Your task to perform on an android device: Add usb-a to usb-b to the cart on target, then select checkout. Image 0: 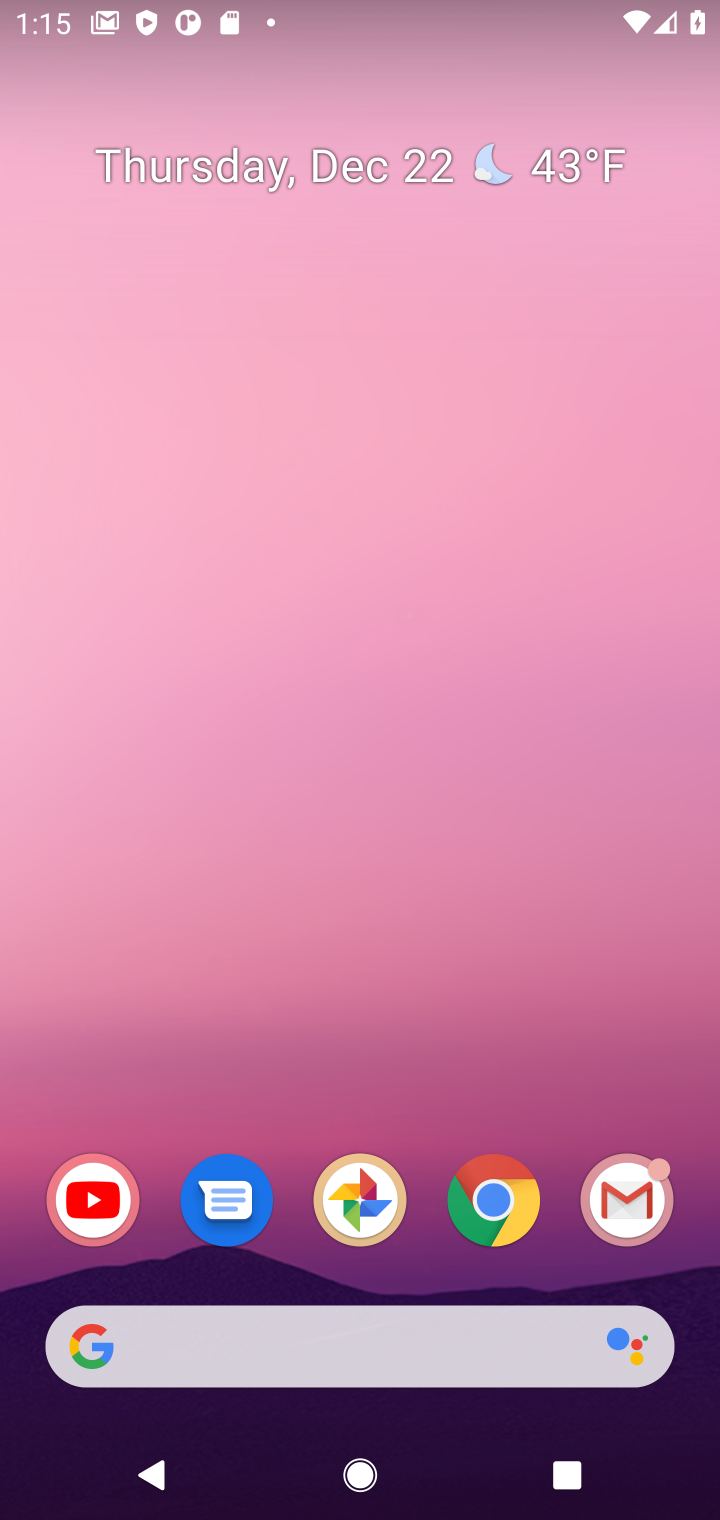
Step 0: click (507, 1224)
Your task to perform on an android device: Add usb-a to usb-b to the cart on target, then select checkout. Image 1: 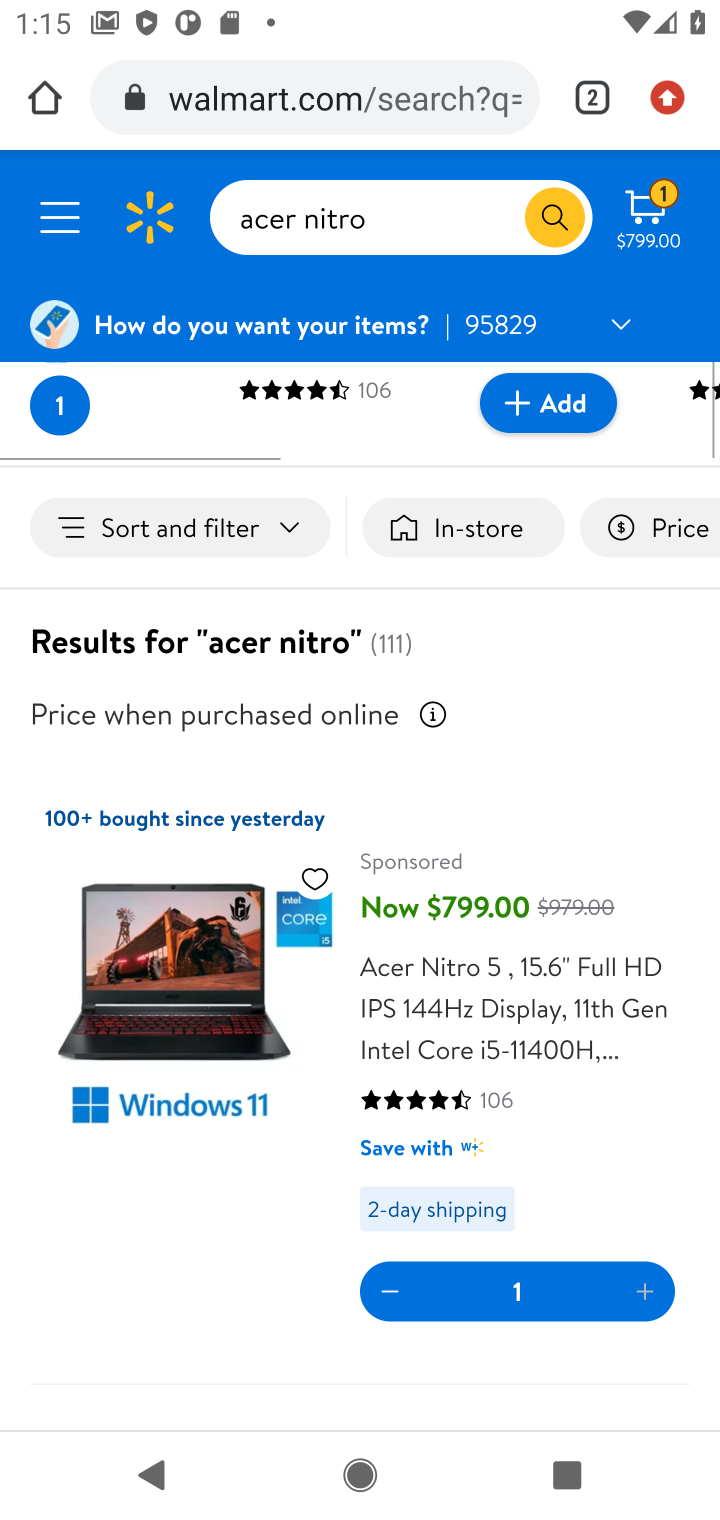
Step 1: click (306, 103)
Your task to perform on an android device: Add usb-a to usb-b to the cart on target, then select checkout. Image 2: 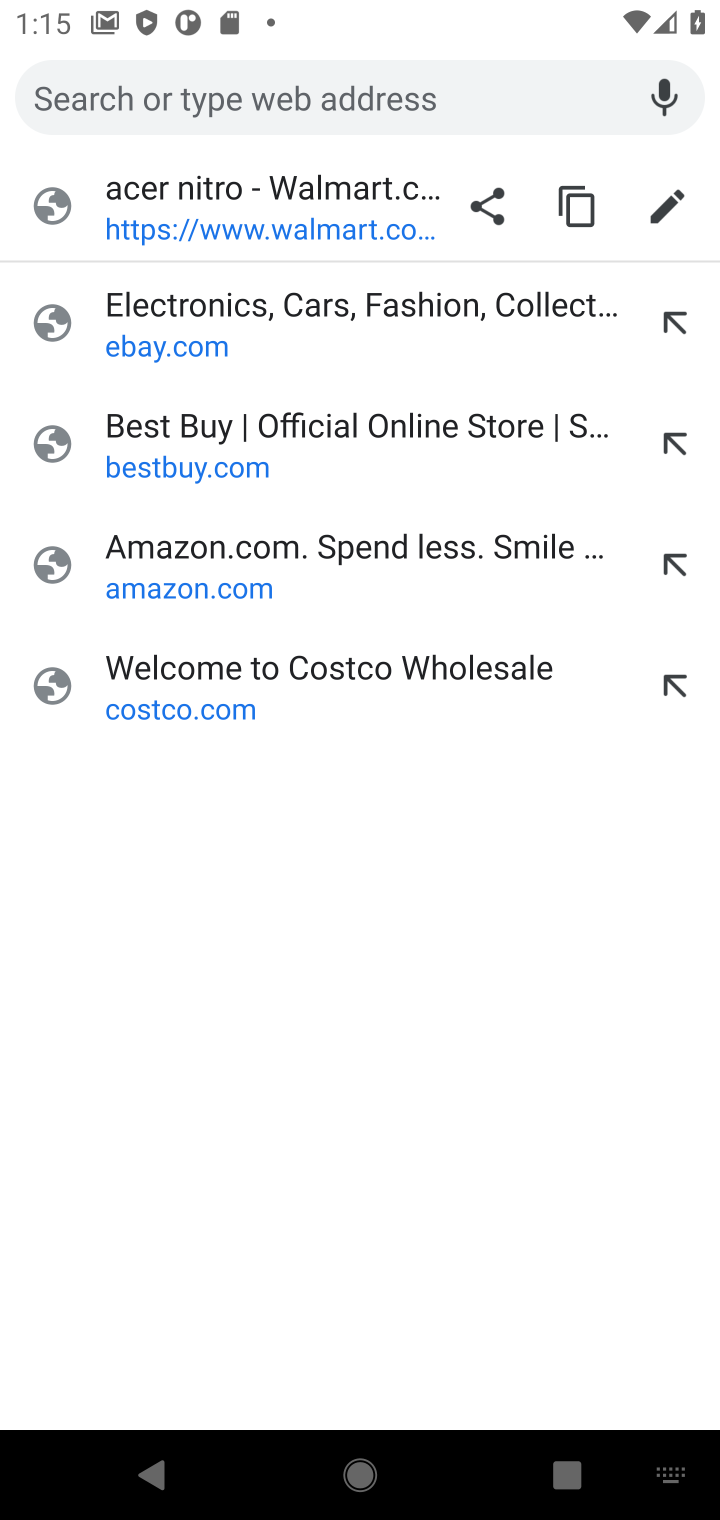
Step 2: type "target.com"
Your task to perform on an android device: Add usb-a to usb-b to the cart on target, then select checkout. Image 3: 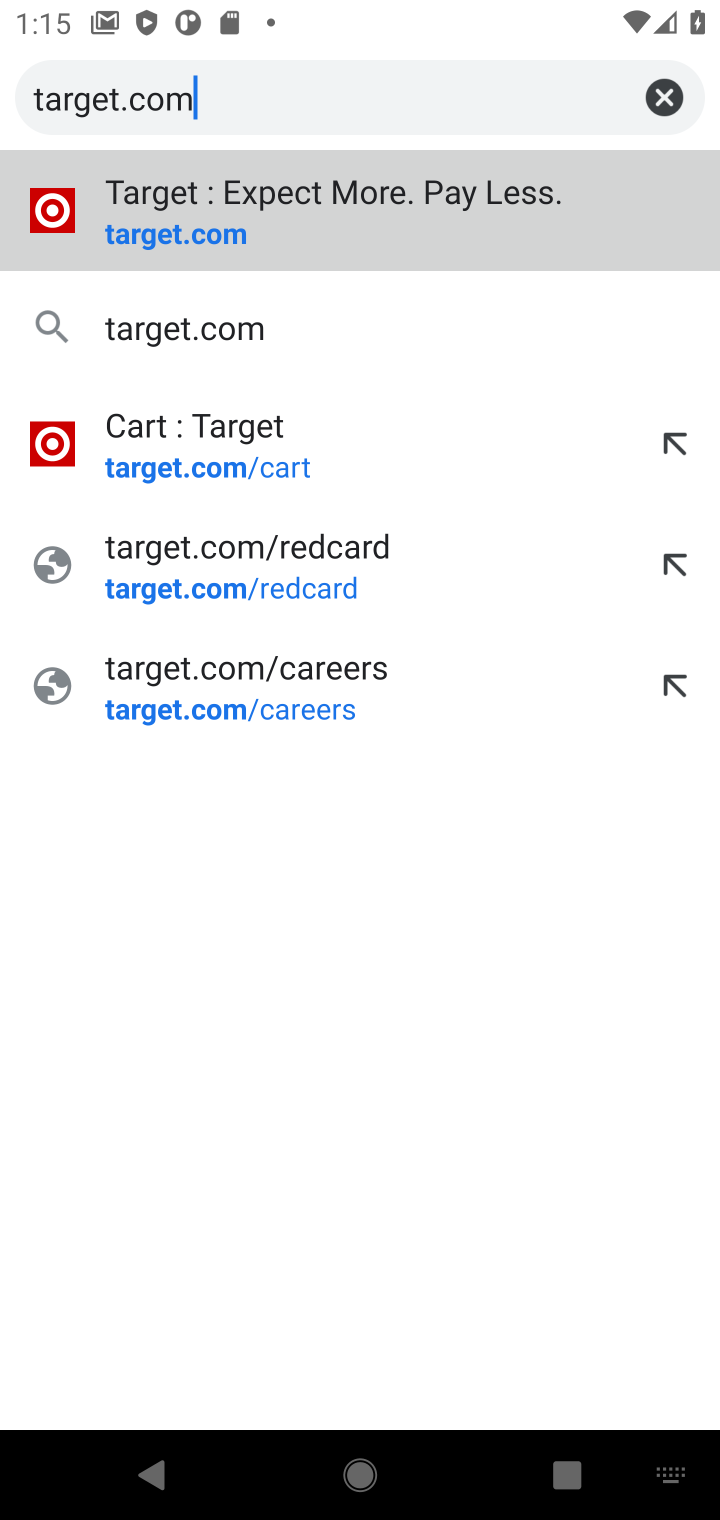
Step 3: click (136, 238)
Your task to perform on an android device: Add usb-a to usb-b to the cart on target, then select checkout. Image 4: 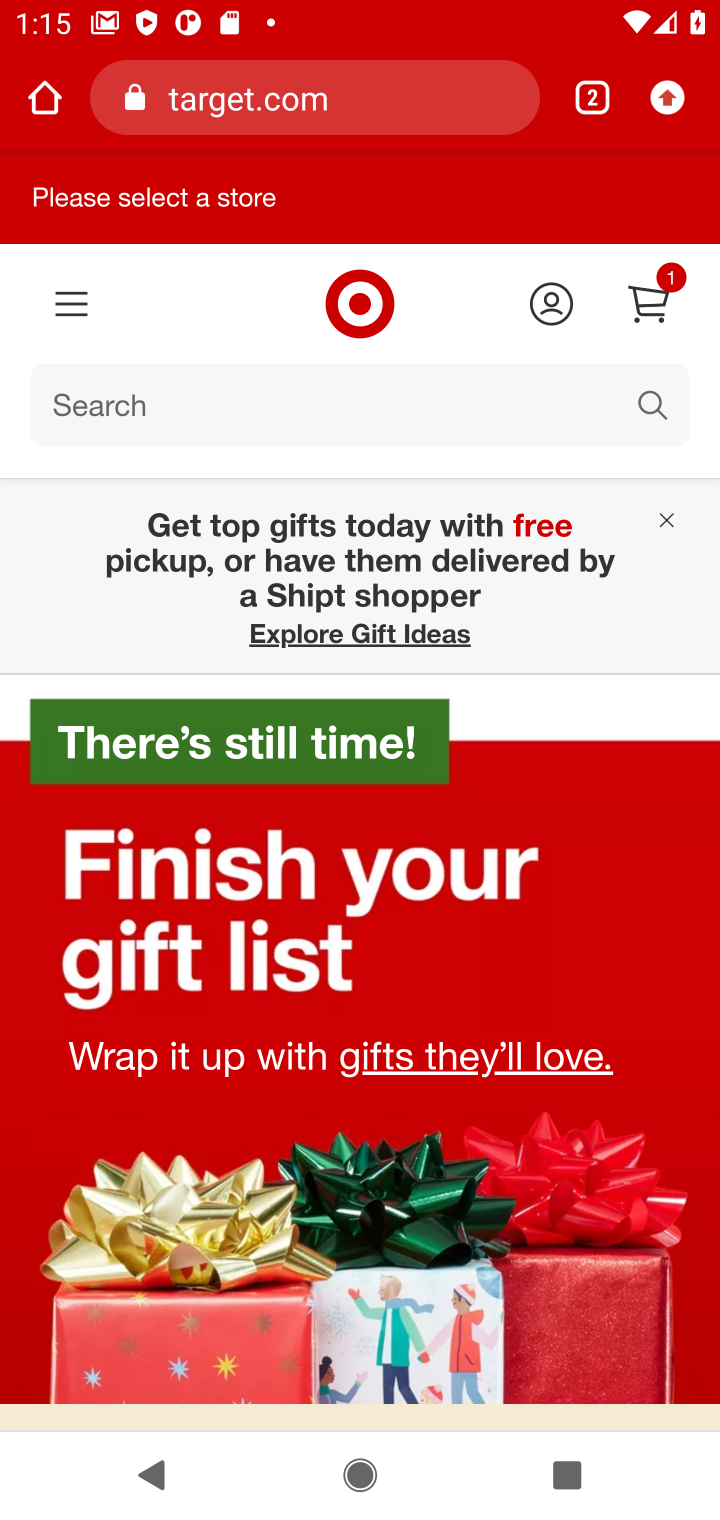
Step 4: click (102, 404)
Your task to perform on an android device: Add usb-a to usb-b to the cart on target, then select checkout. Image 5: 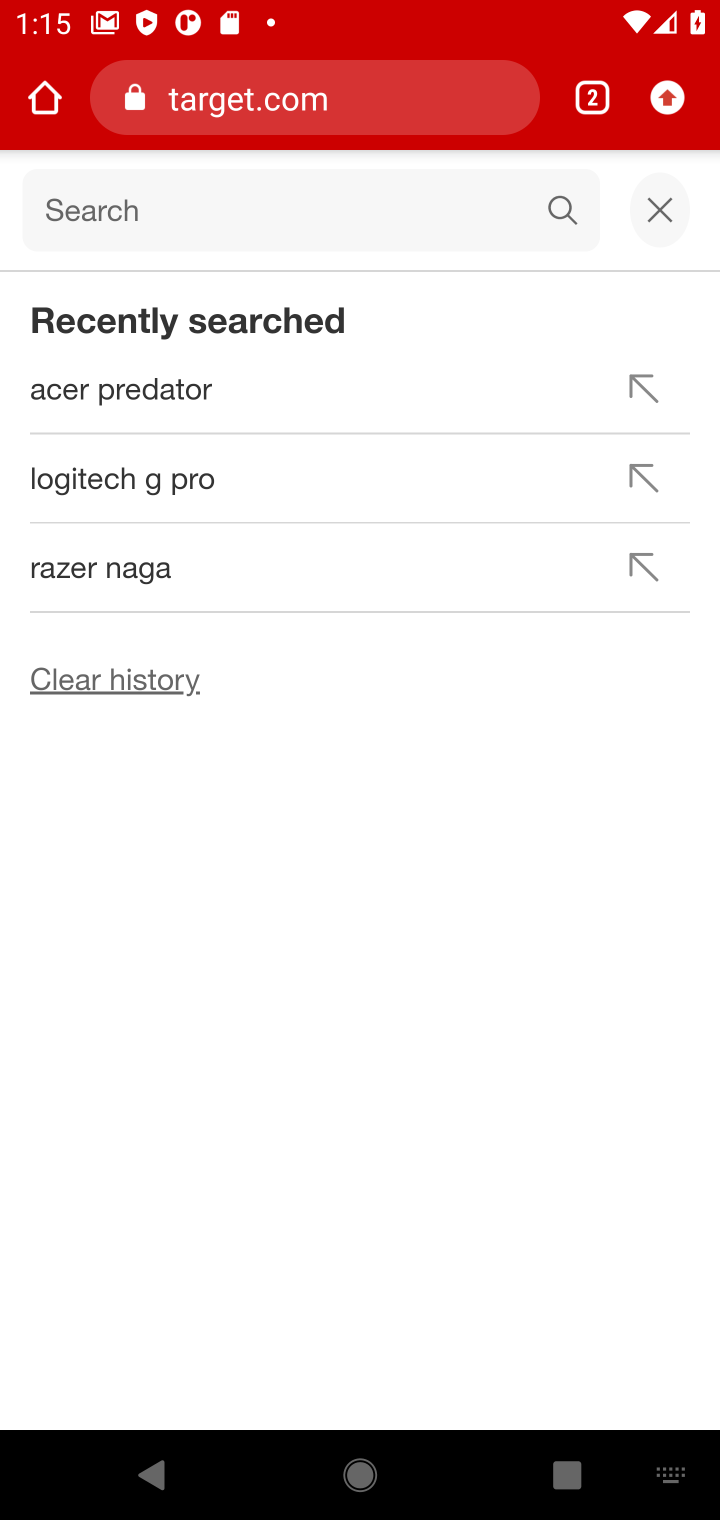
Step 5: type "usb-a to usb-b"
Your task to perform on an android device: Add usb-a to usb-b to the cart on target, then select checkout. Image 6: 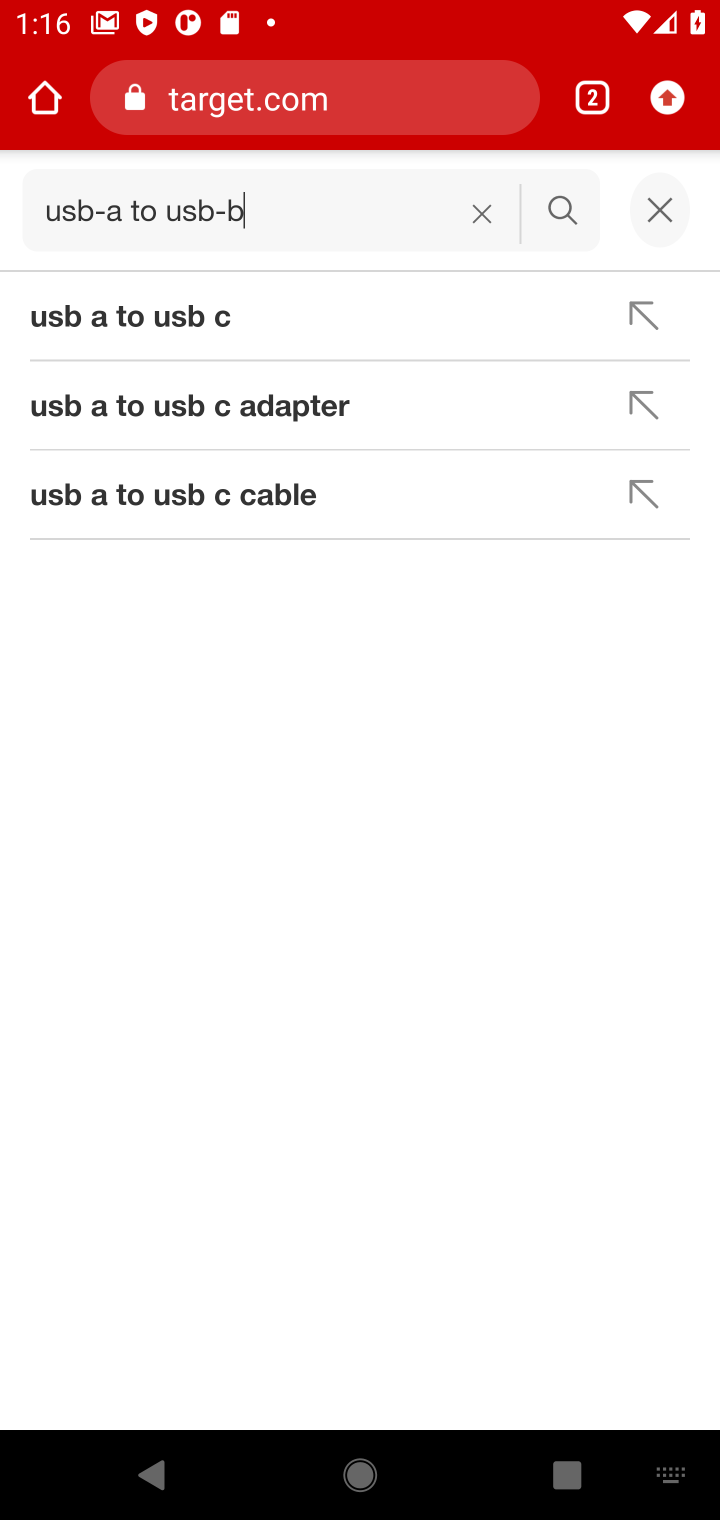
Step 6: click (560, 208)
Your task to perform on an android device: Add usb-a to usb-b to the cart on target, then select checkout. Image 7: 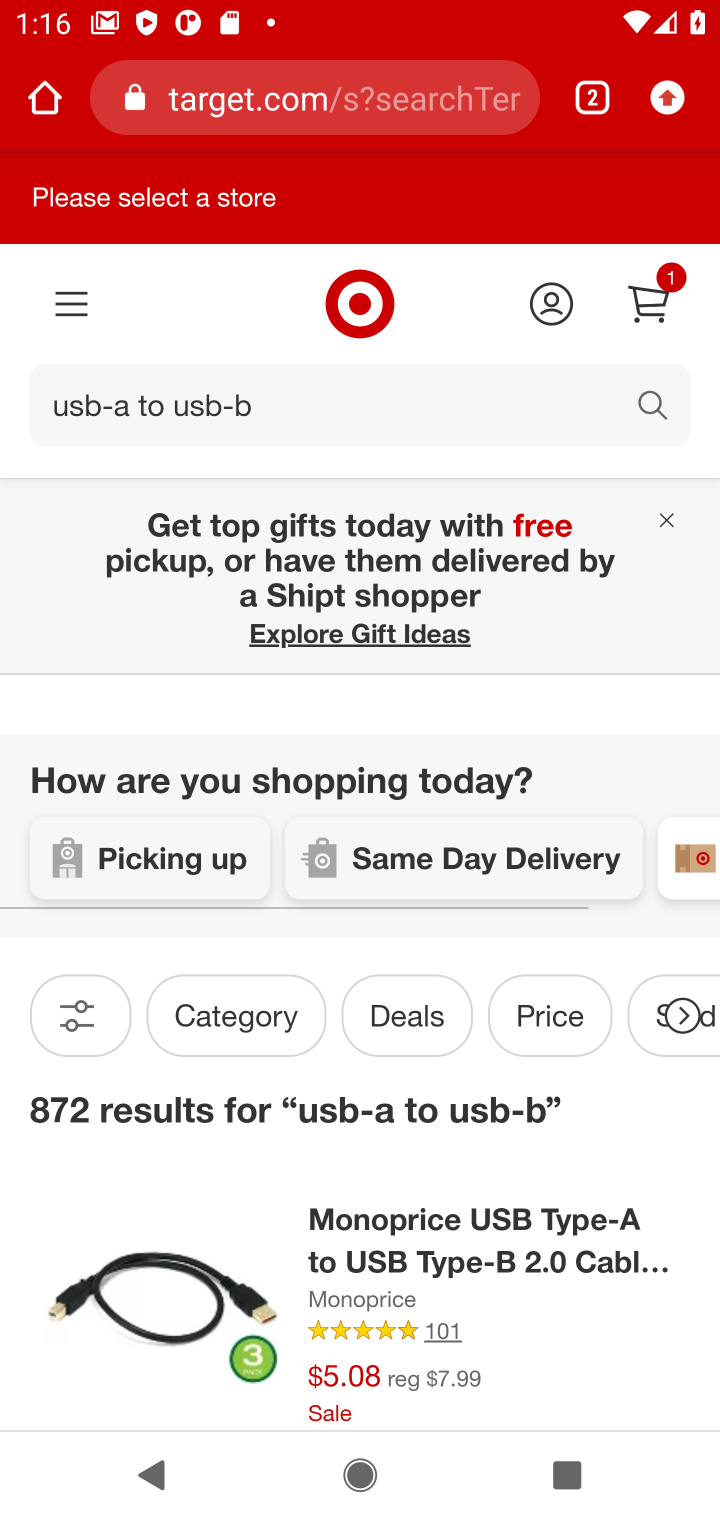
Step 7: drag from (225, 1152) to (227, 766)
Your task to perform on an android device: Add usb-a to usb-b to the cart on target, then select checkout. Image 8: 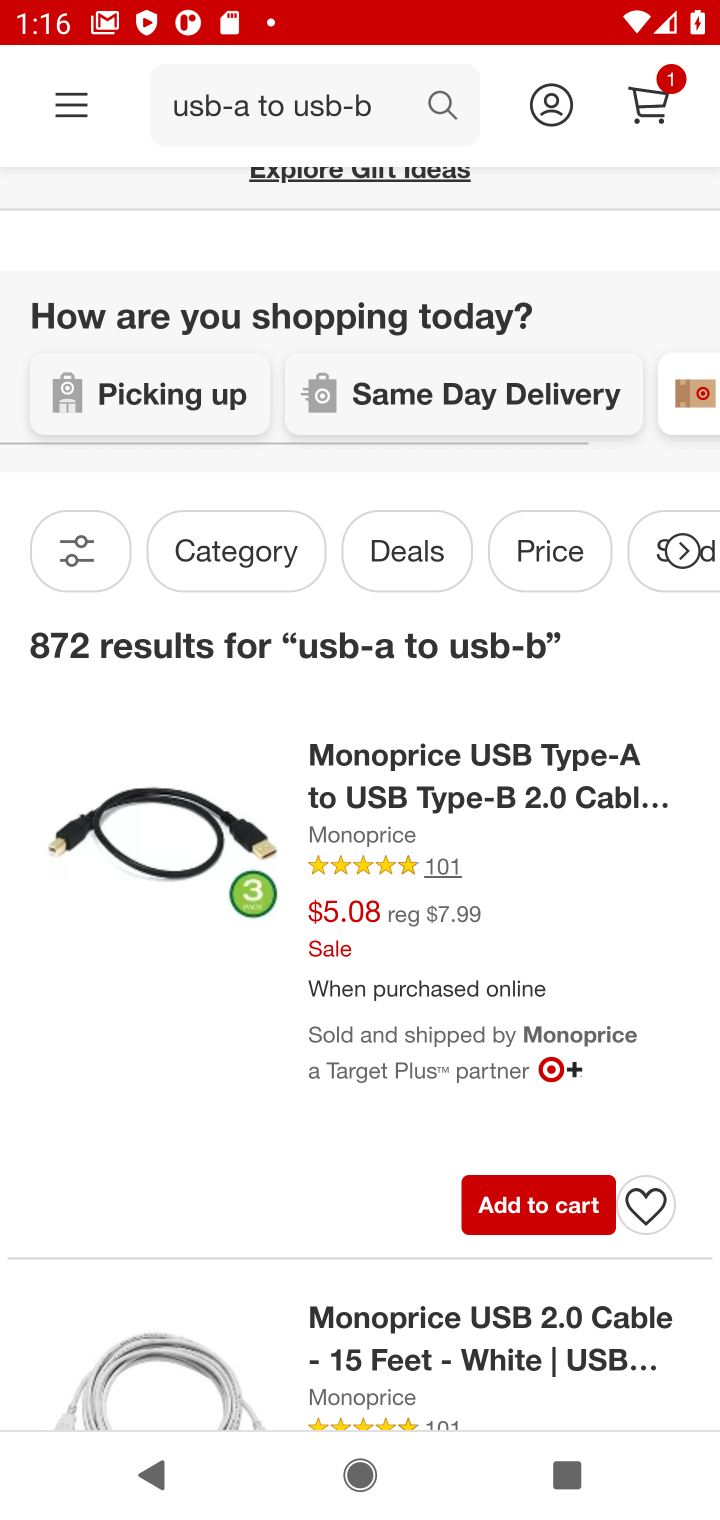
Step 8: click (529, 1215)
Your task to perform on an android device: Add usb-a to usb-b to the cart on target, then select checkout. Image 9: 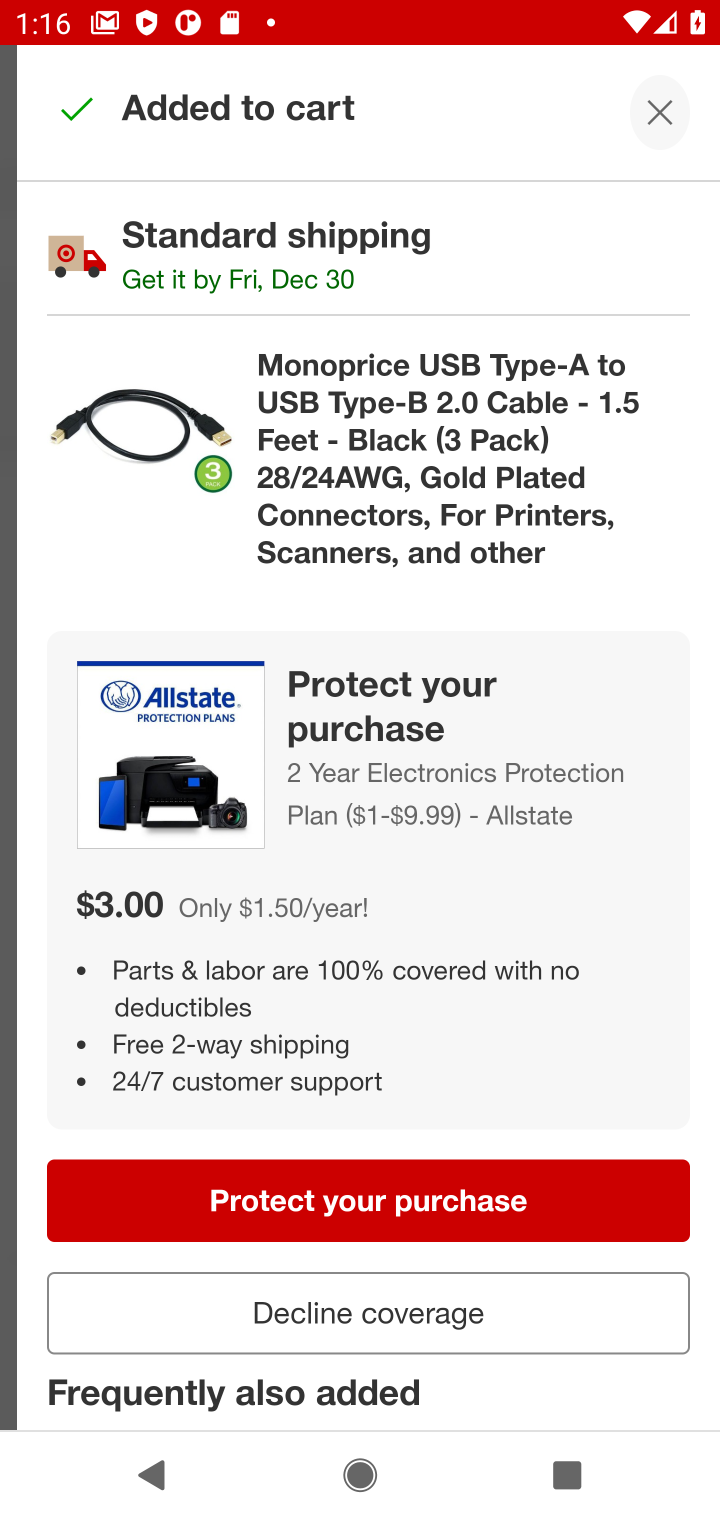
Step 9: click (664, 114)
Your task to perform on an android device: Add usb-a to usb-b to the cart on target, then select checkout. Image 10: 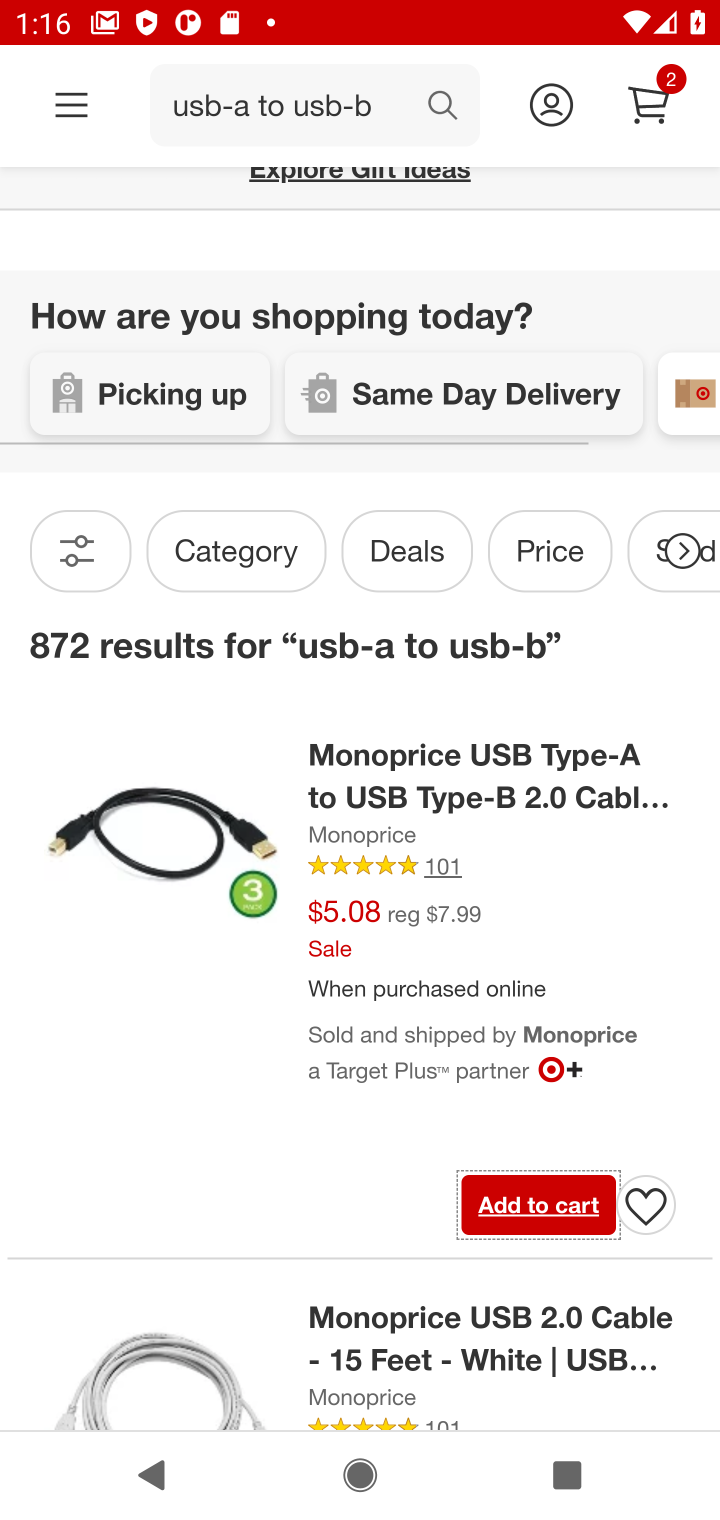
Step 10: click (650, 112)
Your task to perform on an android device: Add usb-a to usb-b to the cart on target, then select checkout. Image 11: 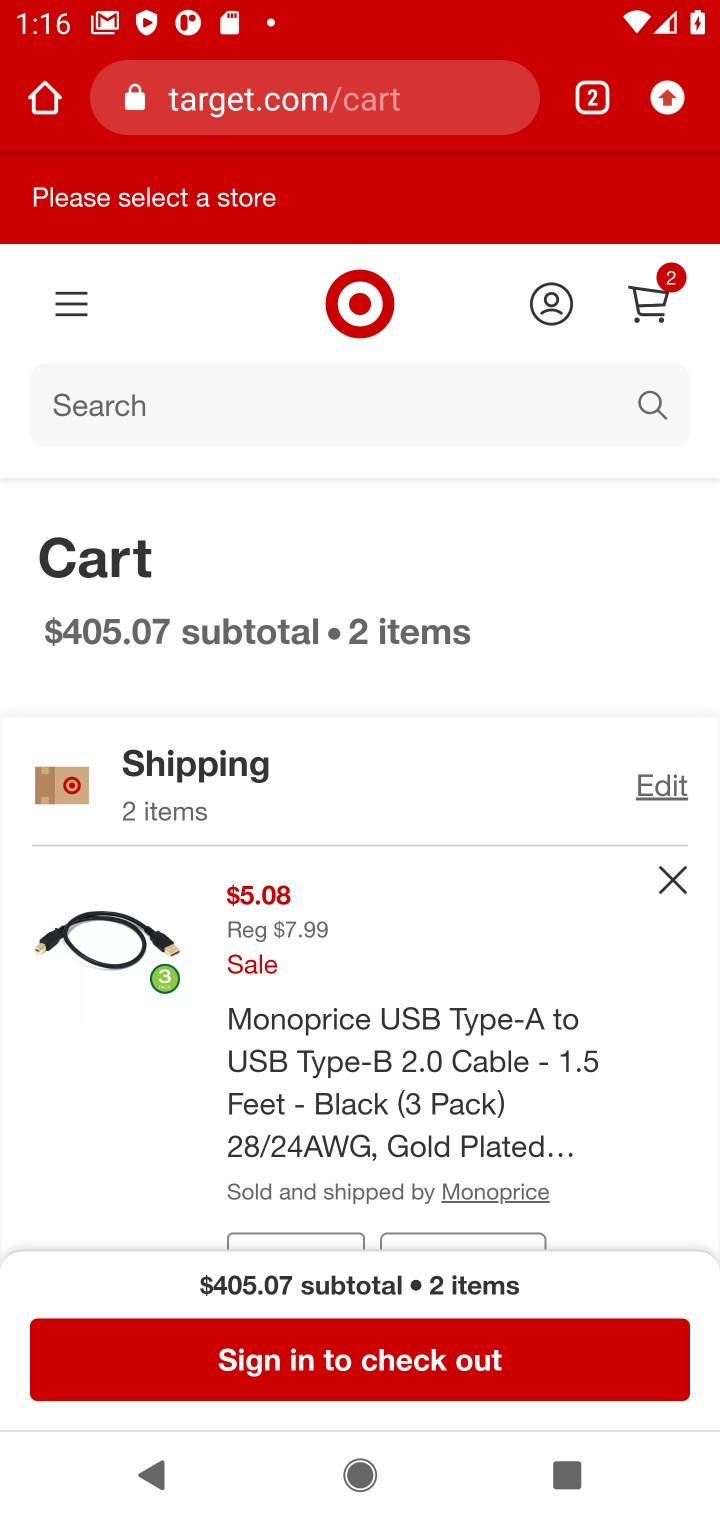
Step 11: click (355, 1364)
Your task to perform on an android device: Add usb-a to usb-b to the cart on target, then select checkout. Image 12: 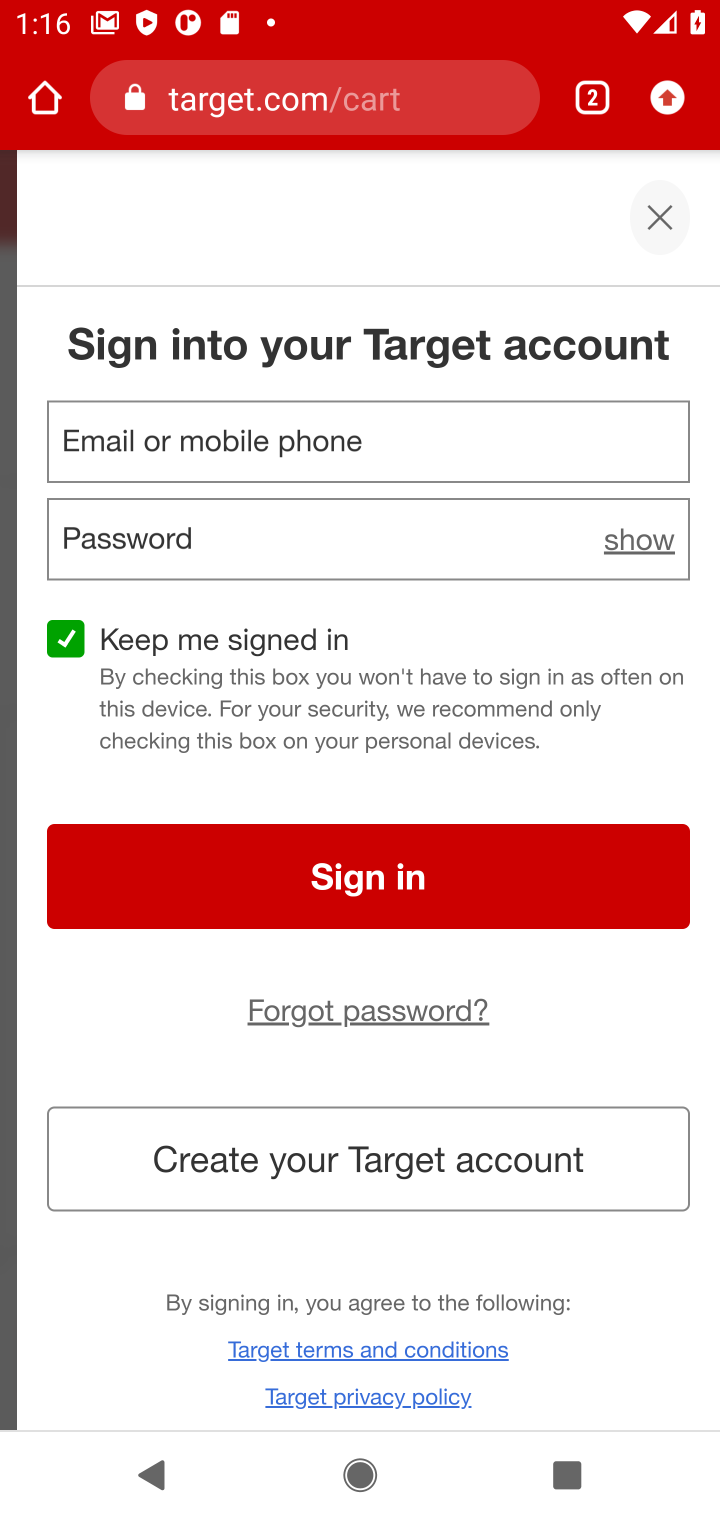
Step 12: task complete